Your task to perform on an android device: toggle location history Image 0: 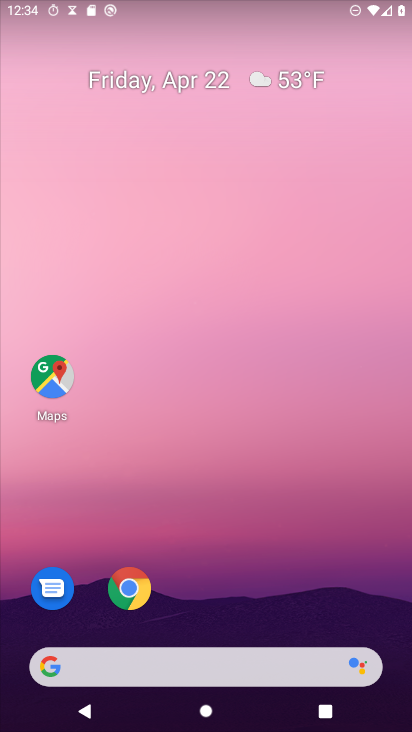
Step 0: drag from (233, 548) to (294, 108)
Your task to perform on an android device: toggle location history Image 1: 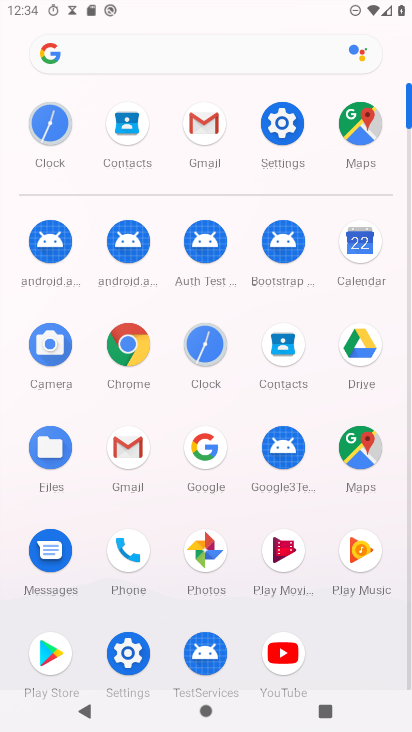
Step 1: click (139, 652)
Your task to perform on an android device: toggle location history Image 2: 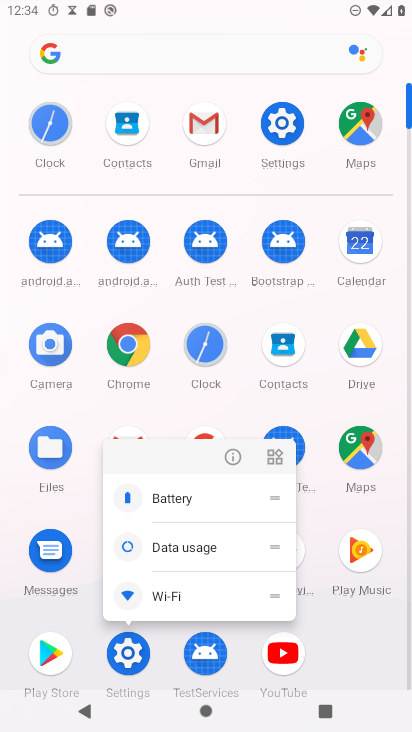
Step 2: click (140, 652)
Your task to perform on an android device: toggle location history Image 3: 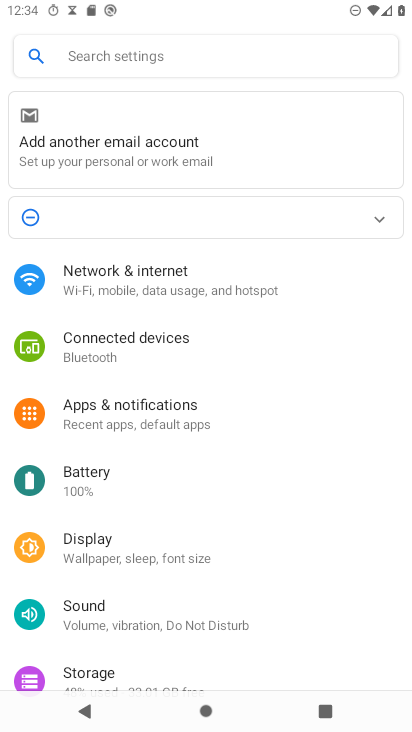
Step 3: drag from (159, 643) to (184, 573)
Your task to perform on an android device: toggle location history Image 4: 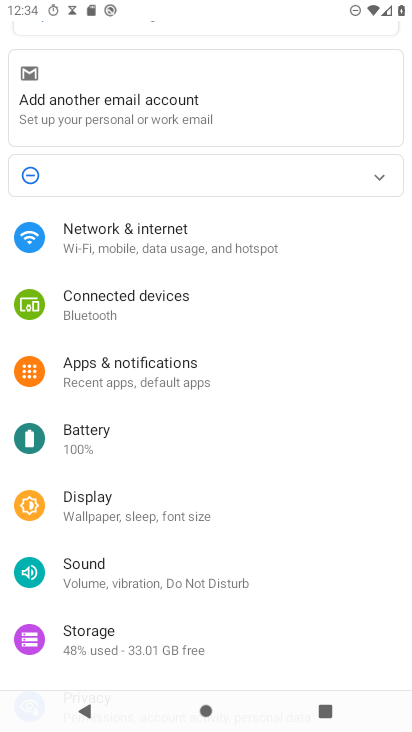
Step 4: drag from (213, 647) to (237, 541)
Your task to perform on an android device: toggle location history Image 5: 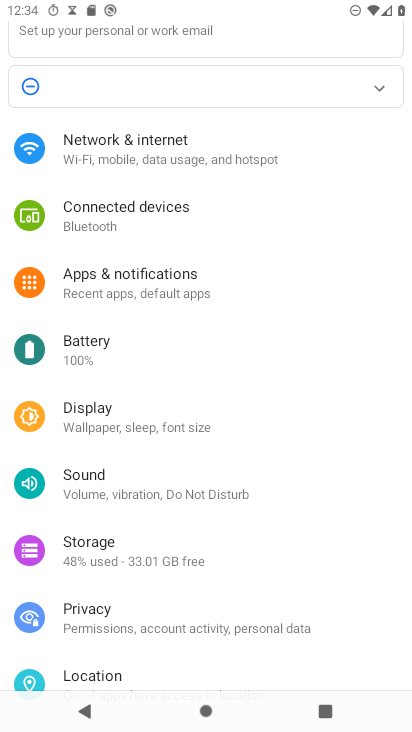
Step 5: drag from (274, 614) to (292, 528)
Your task to perform on an android device: toggle location history Image 6: 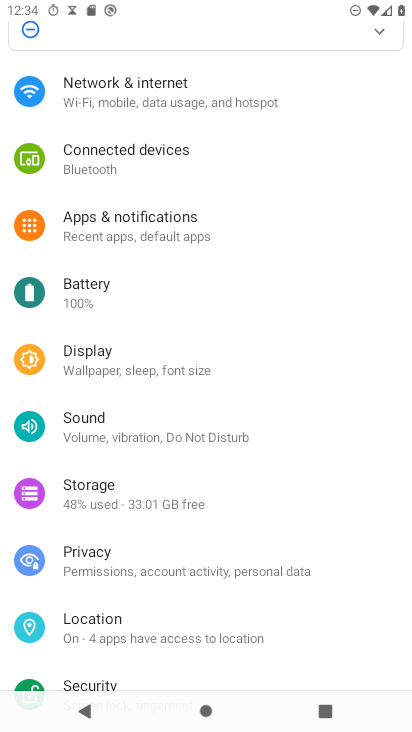
Step 6: click (254, 644)
Your task to perform on an android device: toggle location history Image 7: 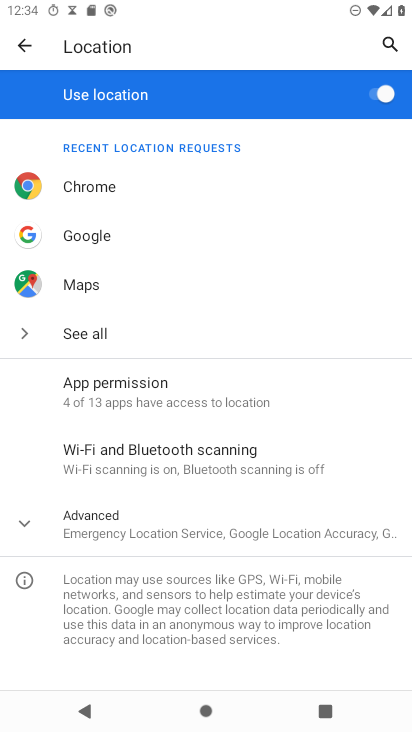
Step 7: click (127, 530)
Your task to perform on an android device: toggle location history Image 8: 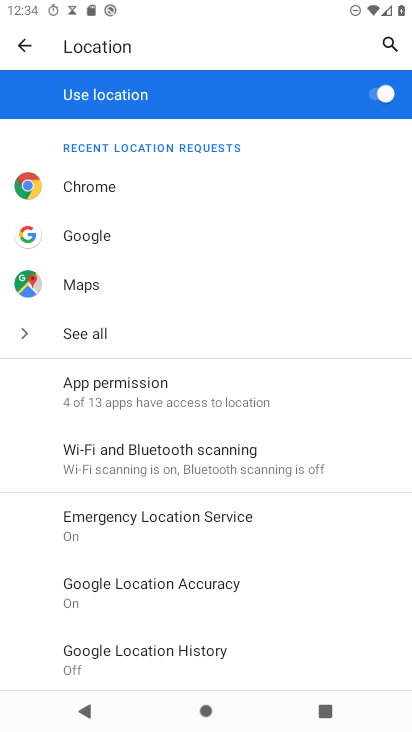
Step 8: click (171, 648)
Your task to perform on an android device: toggle location history Image 9: 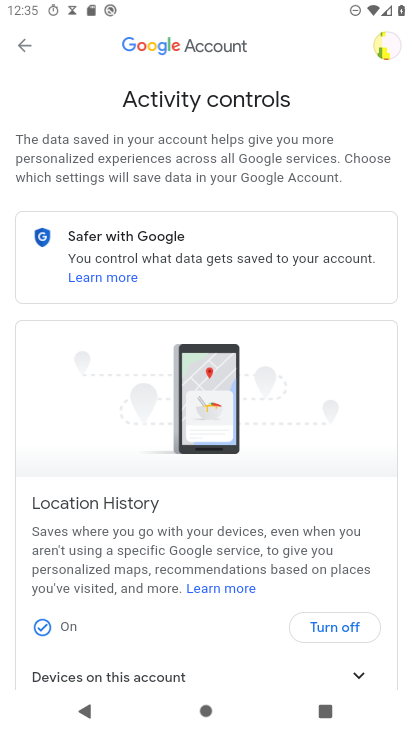
Step 9: click (322, 631)
Your task to perform on an android device: toggle location history Image 10: 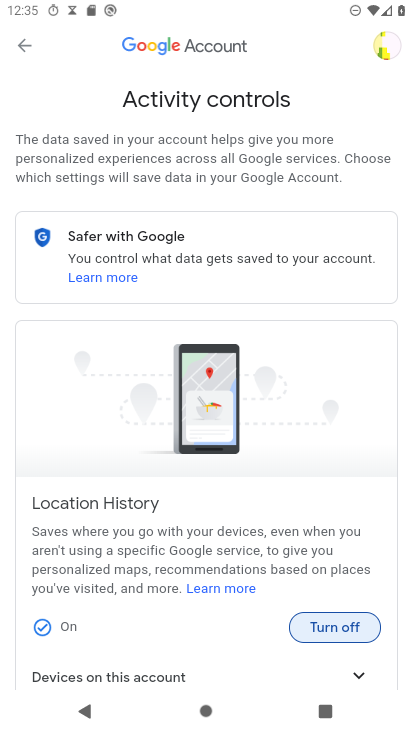
Step 10: click (322, 631)
Your task to perform on an android device: toggle location history Image 11: 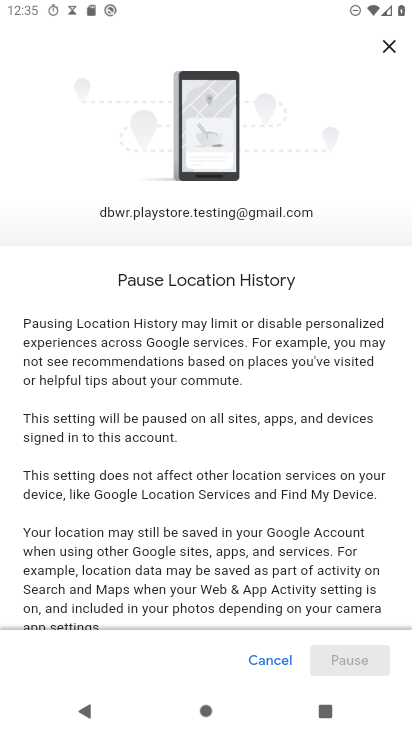
Step 11: drag from (284, 595) to (323, 258)
Your task to perform on an android device: toggle location history Image 12: 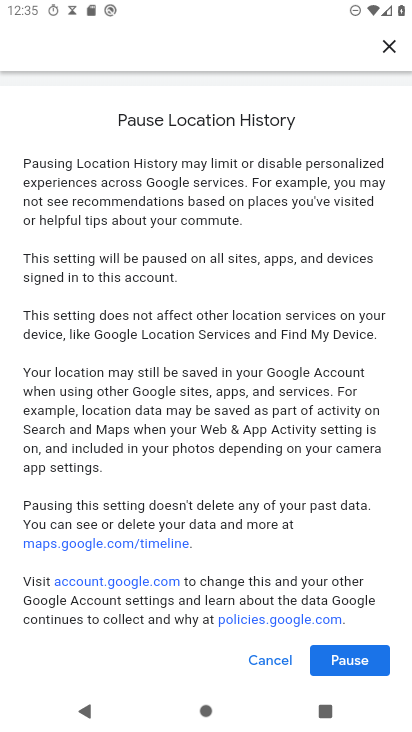
Step 12: click (330, 671)
Your task to perform on an android device: toggle location history Image 13: 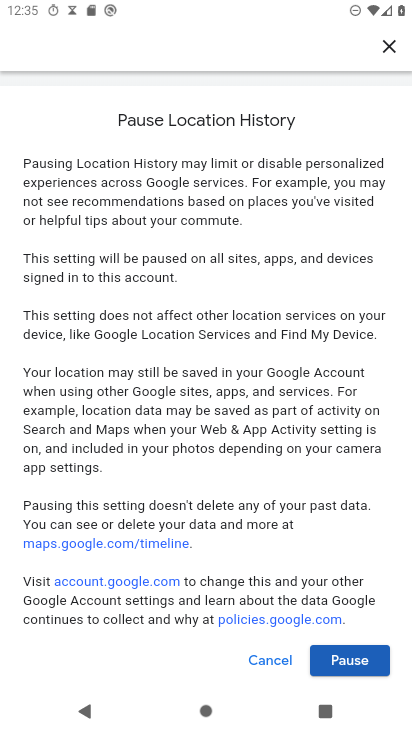
Step 13: click (330, 667)
Your task to perform on an android device: toggle location history Image 14: 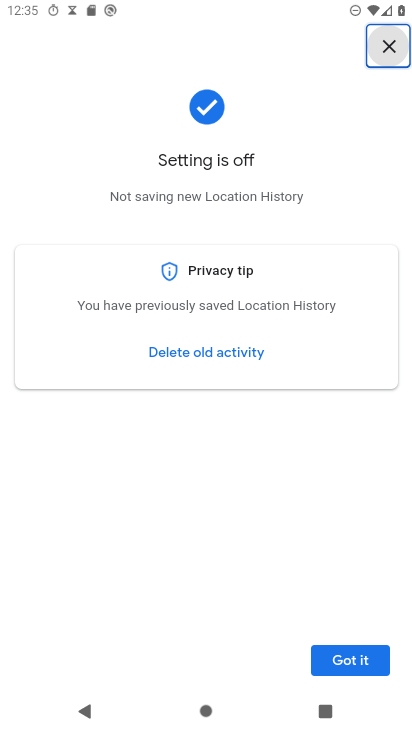
Step 14: task complete